Your task to perform on an android device: Open accessibility settings Image 0: 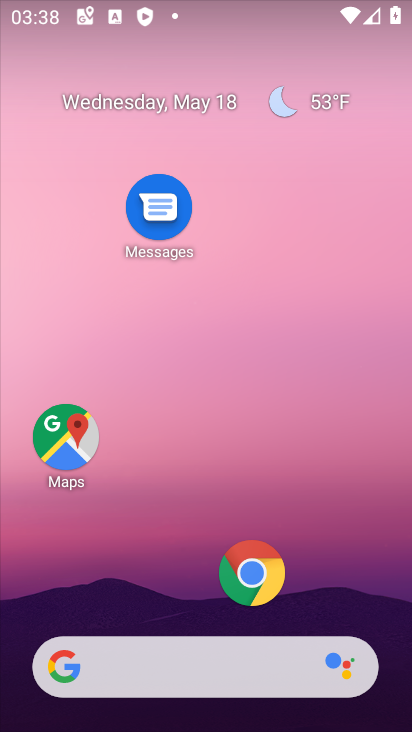
Step 0: drag from (199, 589) to (244, 250)
Your task to perform on an android device: Open accessibility settings Image 1: 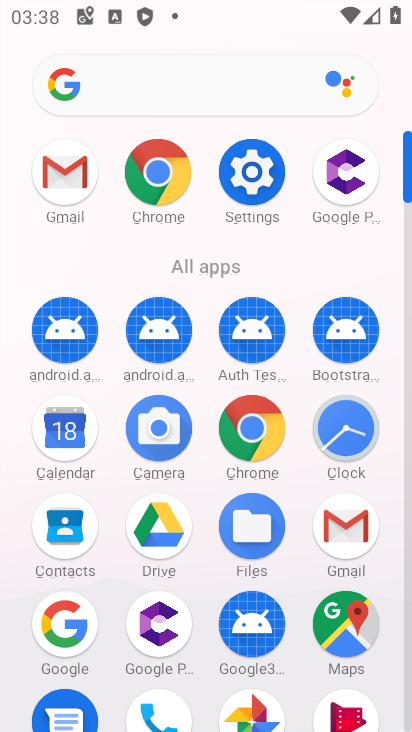
Step 1: click (255, 183)
Your task to perform on an android device: Open accessibility settings Image 2: 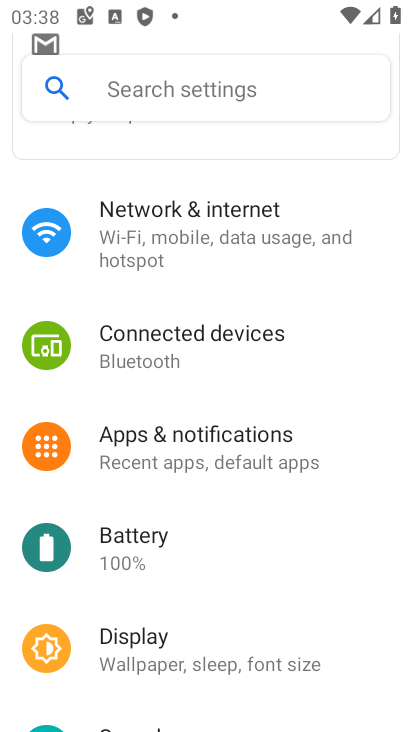
Step 2: drag from (180, 596) to (210, 344)
Your task to perform on an android device: Open accessibility settings Image 3: 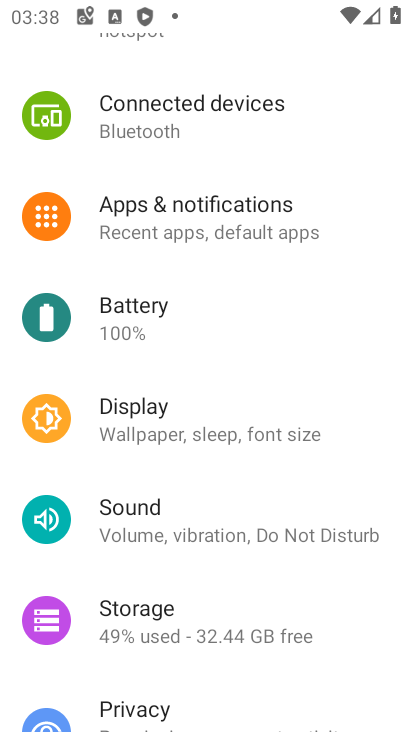
Step 3: drag from (234, 606) to (242, 328)
Your task to perform on an android device: Open accessibility settings Image 4: 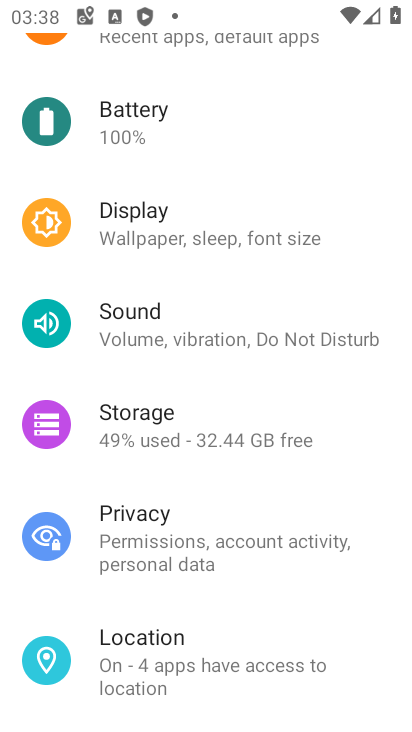
Step 4: drag from (218, 606) to (242, 331)
Your task to perform on an android device: Open accessibility settings Image 5: 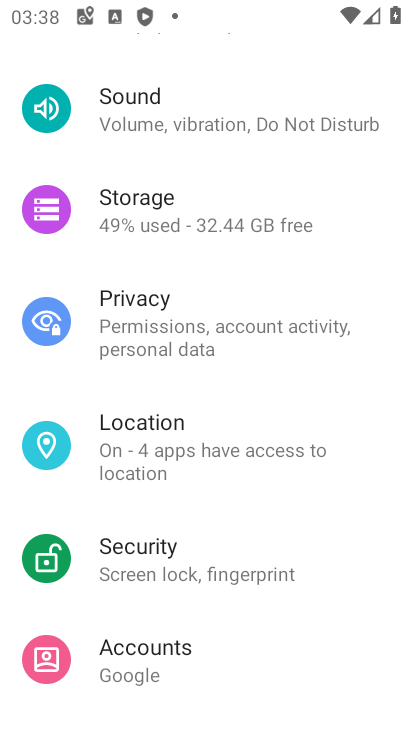
Step 5: drag from (249, 555) to (252, 358)
Your task to perform on an android device: Open accessibility settings Image 6: 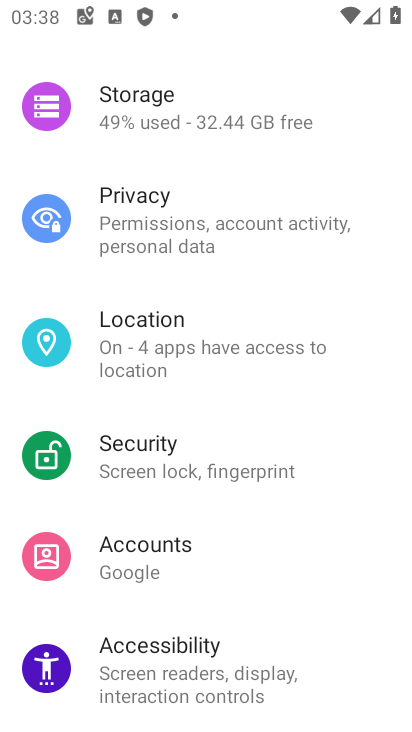
Step 6: click (201, 632)
Your task to perform on an android device: Open accessibility settings Image 7: 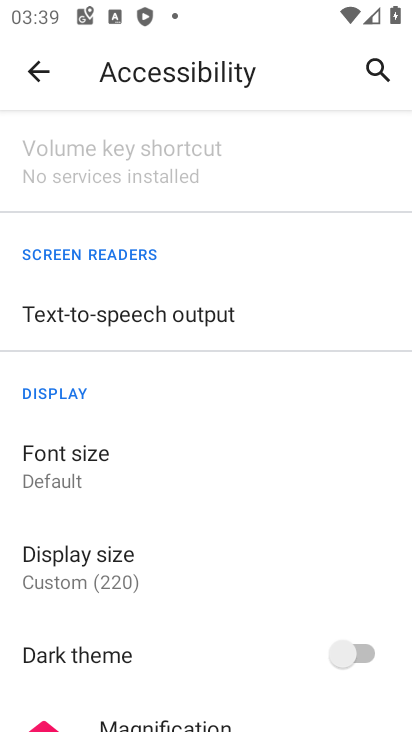
Step 7: task complete